Your task to perform on an android device: manage bookmarks in the chrome app Image 0: 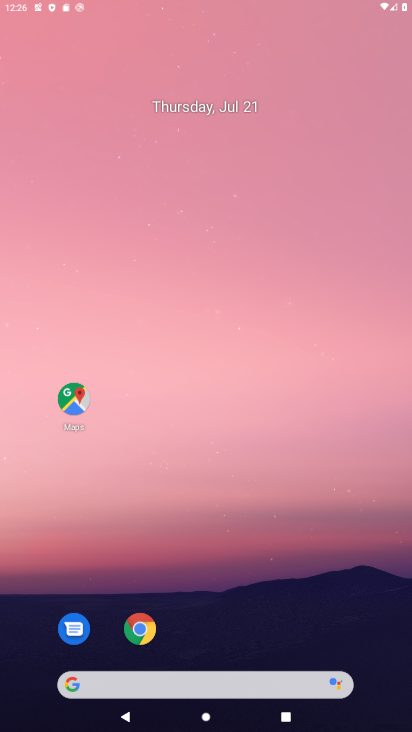
Step 0: click (284, 93)
Your task to perform on an android device: manage bookmarks in the chrome app Image 1: 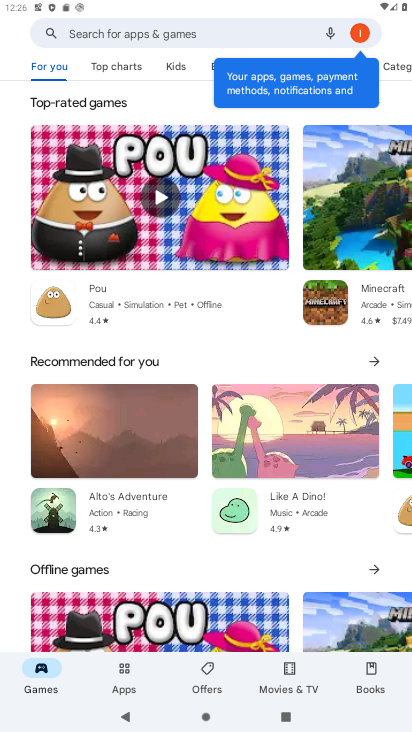
Step 1: press home button
Your task to perform on an android device: manage bookmarks in the chrome app Image 2: 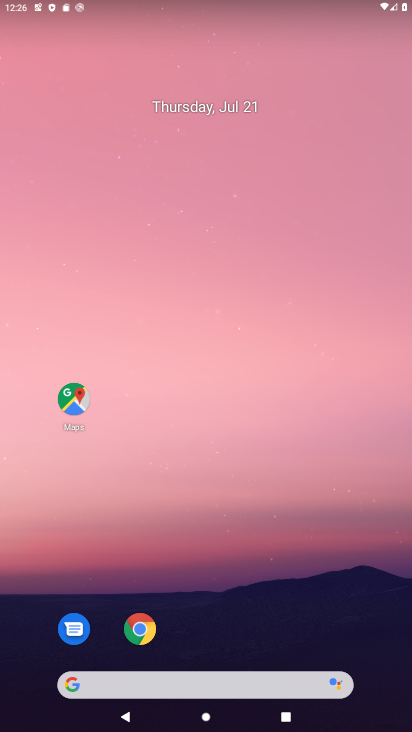
Step 2: drag from (280, 151) to (284, 102)
Your task to perform on an android device: manage bookmarks in the chrome app Image 3: 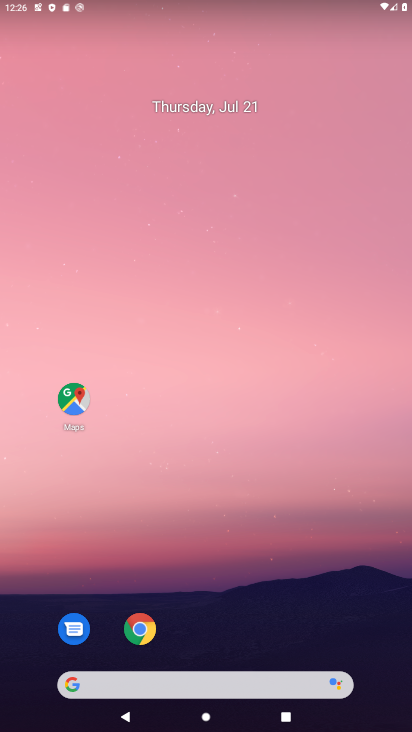
Step 3: drag from (259, 582) to (279, 117)
Your task to perform on an android device: manage bookmarks in the chrome app Image 4: 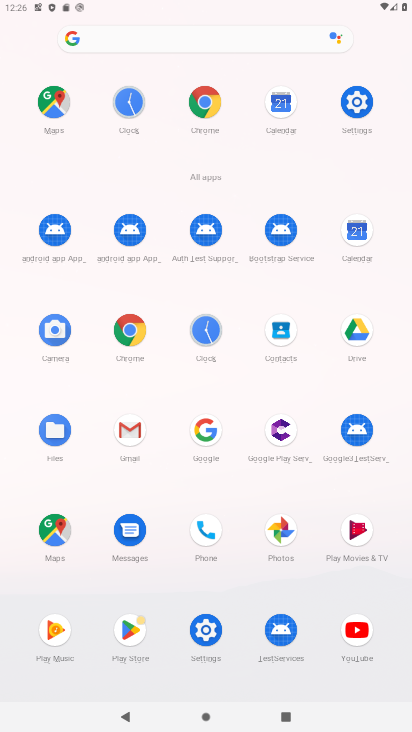
Step 4: click (204, 99)
Your task to perform on an android device: manage bookmarks in the chrome app Image 5: 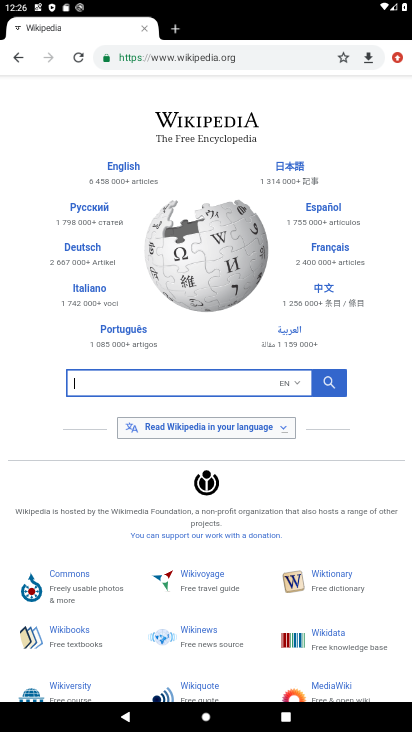
Step 5: drag from (403, 51) to (311, 167)
Your task to perform on an android device: manage bookmarks in the chrome app Image 6: 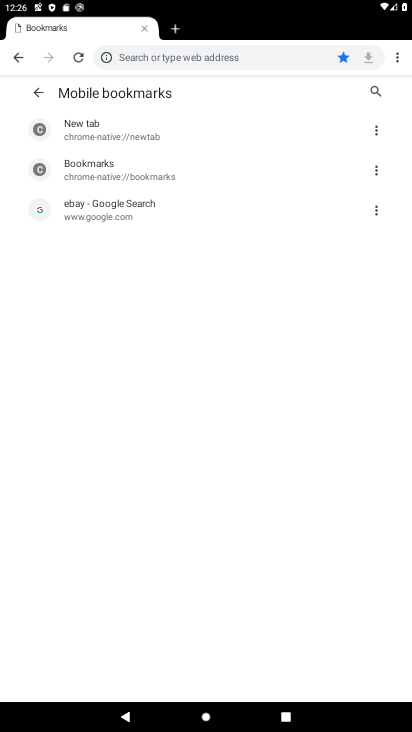
Step 6: click (373, 206)
Your task to perform on an android device: manage bookmarks in the chrome app Image 7: 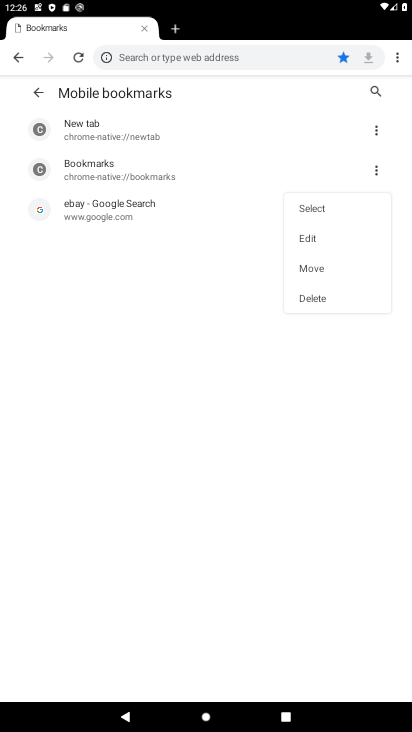
Step 7: click (311, 244)
Your task to perform on an android device: manage bookmarks in the chrome app Image 8: 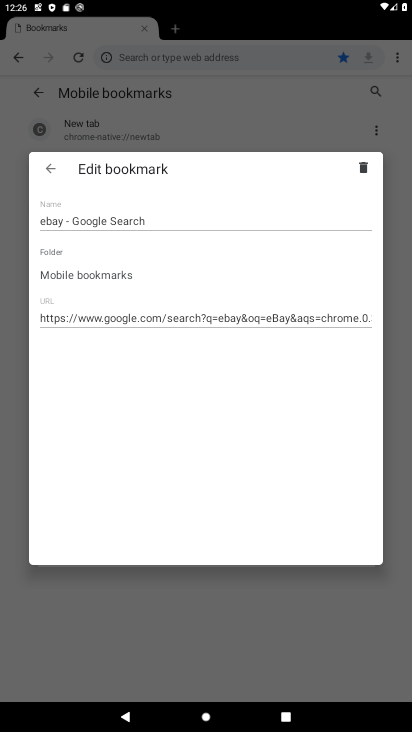
Step 8: click (216, 217)
Your task to perform on an android device: manage bookmarks in the chrome app Image 9: 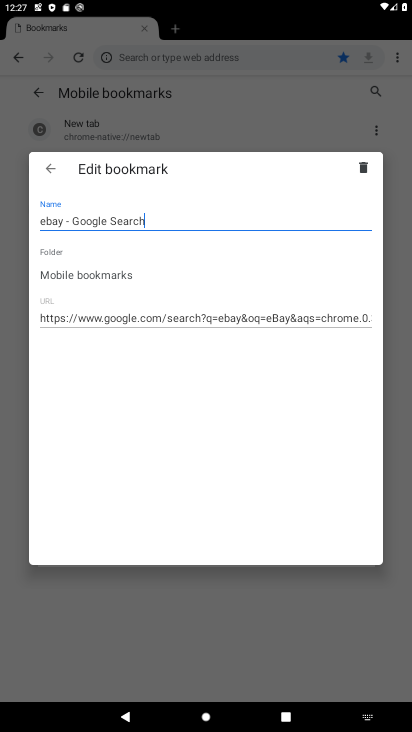
Step 9: type " lagi"
Your task to perform on an android device: manage bookmarks in the chrome app Image 10: 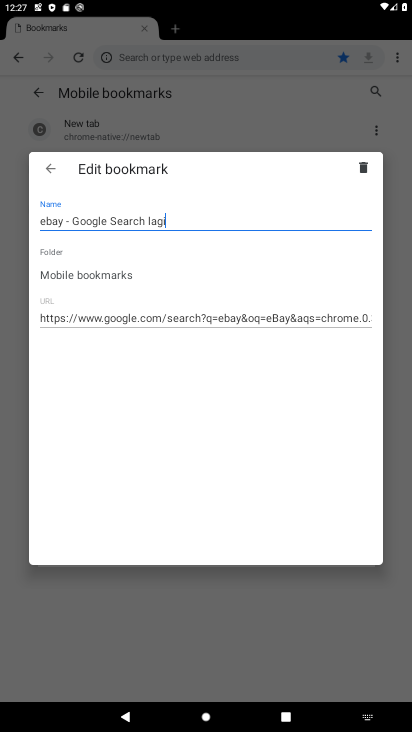
Step 10: click (137, 115)
Your task to perform on an android device: manage bookmarks in the chrome app Image 11: 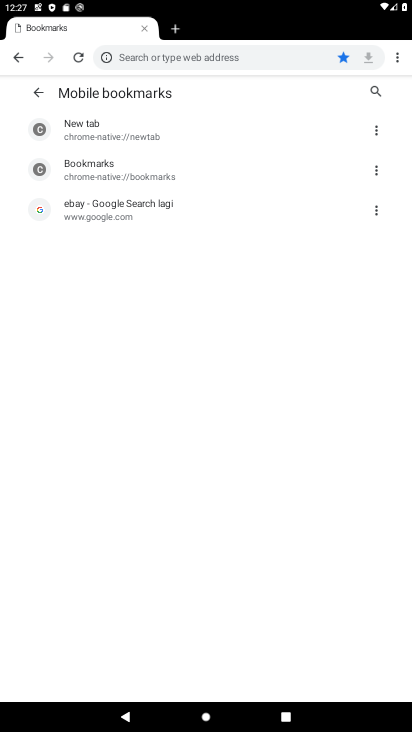
Step 11: task complete